Your task to perform on an android device: Open settings on Google Maps Image 0: 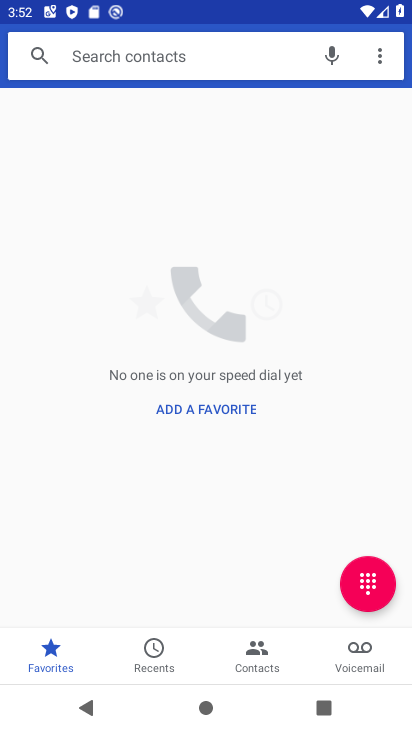
Step 0: press home button
Your task to perform on an android device: Open settings on Google Maps Image 1: 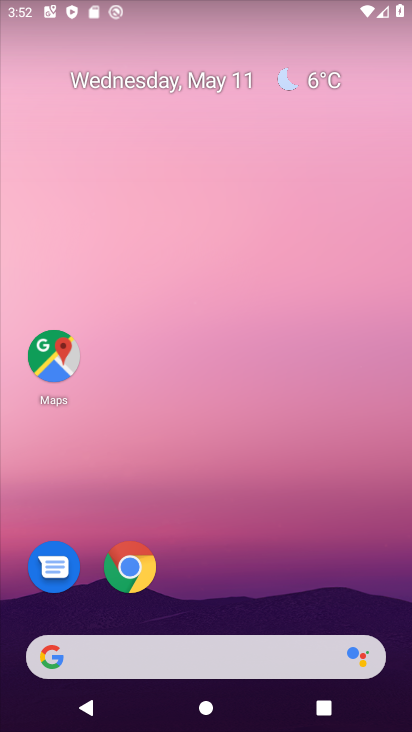
Step 1: click (51, 359)
Your task to perform on an android device: Open settings on Google Maps Image 2: 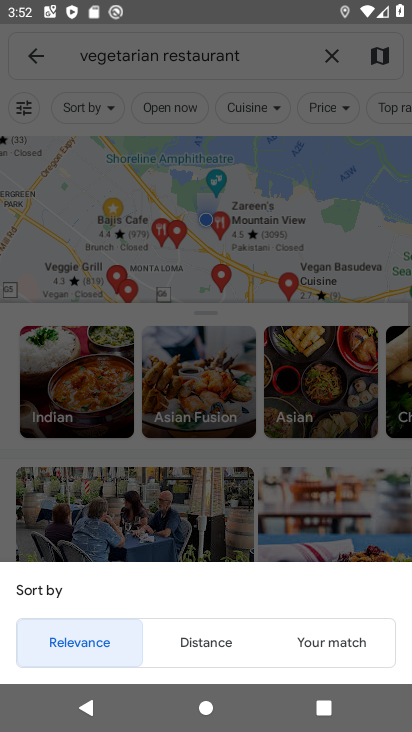
Step 2: click (42, 51)
Your task to perform on an android device: Open settings on Google Maps Image 3: 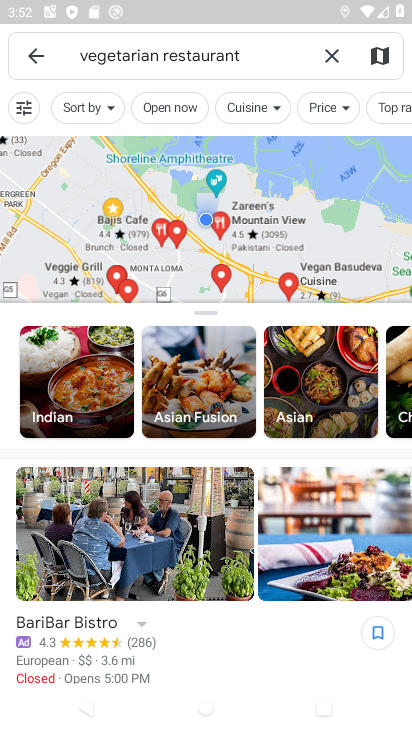
Step 3: click (326, 47)
Your task to perform on an android device: Open settings on Google Maps Image 4: 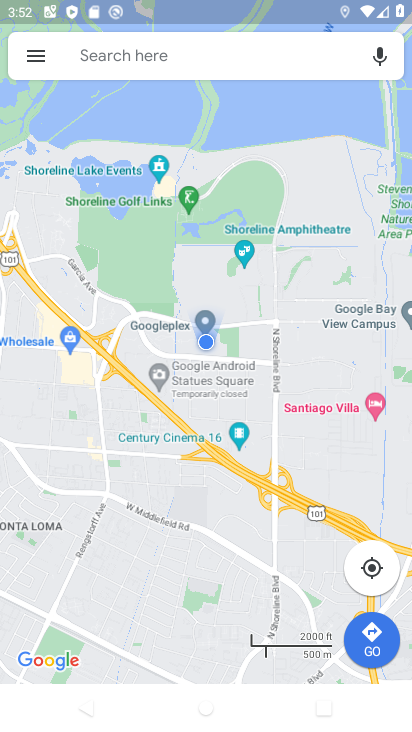
Step 4: click (26, 51)
Your task to perform on an android device: Open settings on Google Maps Image 5: 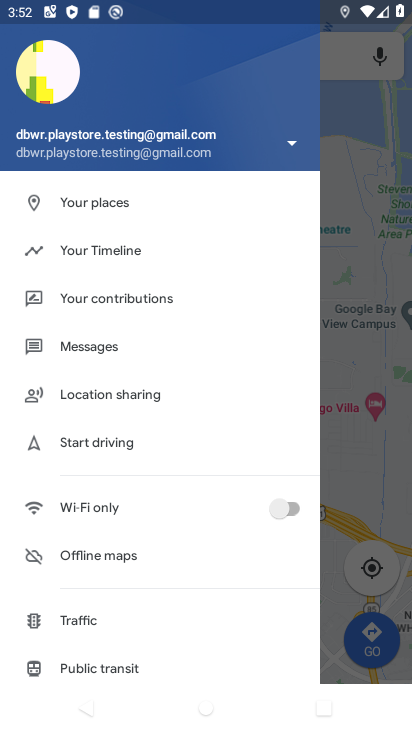
Step 5: drag from (166, 655) to (188, 347)
Your task to perform on an android device: Open settings on Google Maps Image 6: 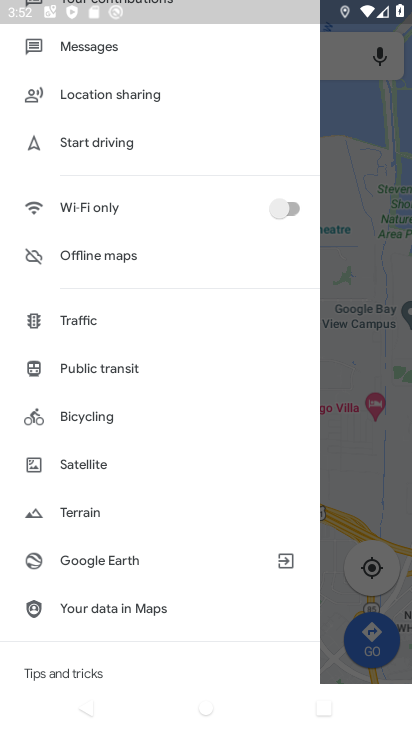
Step 6: drag from (103, 652) to (160, 288)
Your task to perform on an android device: Open settings on Google Maps Image 7: 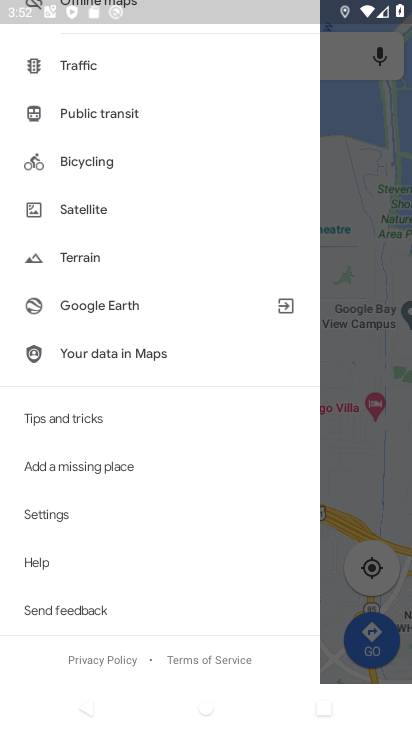
Step 7: click (59, 513)
Your task to perform on an android device: Open settings on Google Maps Image 8: 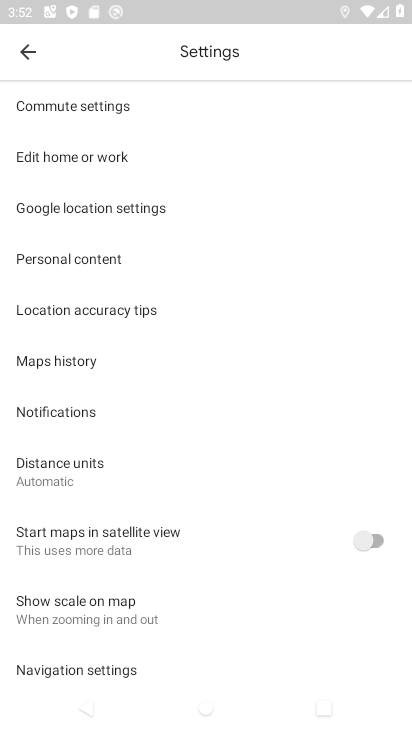
Step 8: task complete